Your task to perform on an android device: What is the news today? Image 0: 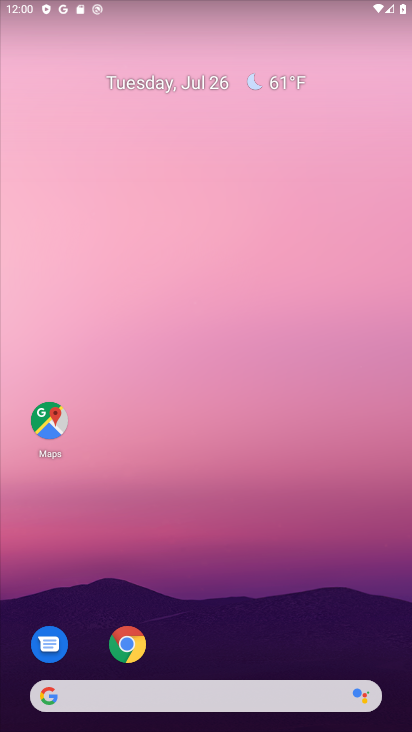
Step 0: click (222, 686)
Your task to perform on an android device: What is the news today? Image 1: 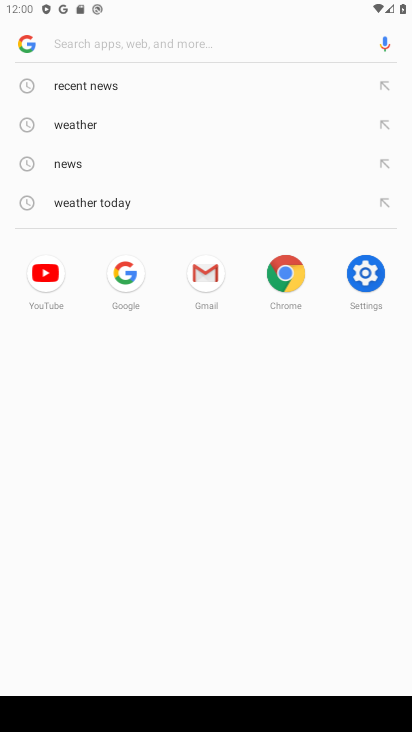
Step 1: type "what is the news today"
Your task to perform on an android device: What is the news today? Image 2: 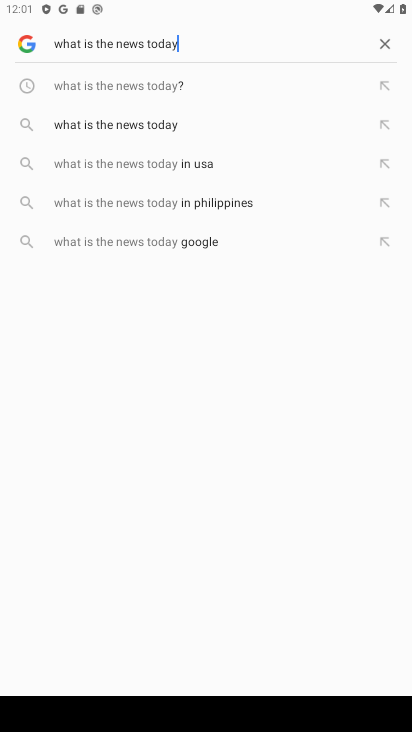
Step 2: click (80, 80)
Your task to perform on an android device: What is the news today? Image 3: 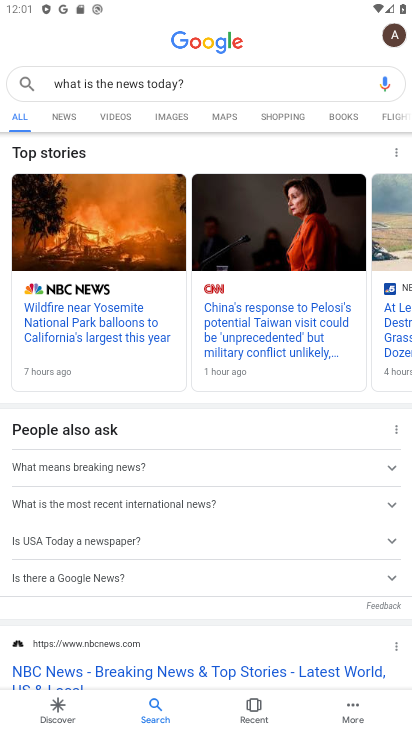
Step 3: click (61, 118)
Your task to perform on an android device: What is the news today? Image 4: 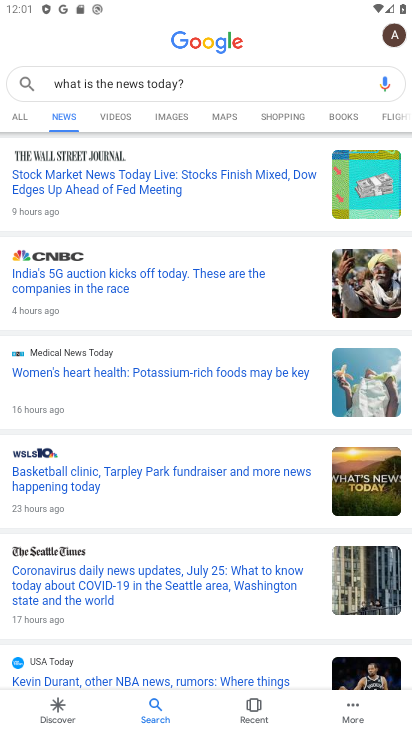
Step 4: task complete